Your task to perform on an android device: What's the weather? Image 0: 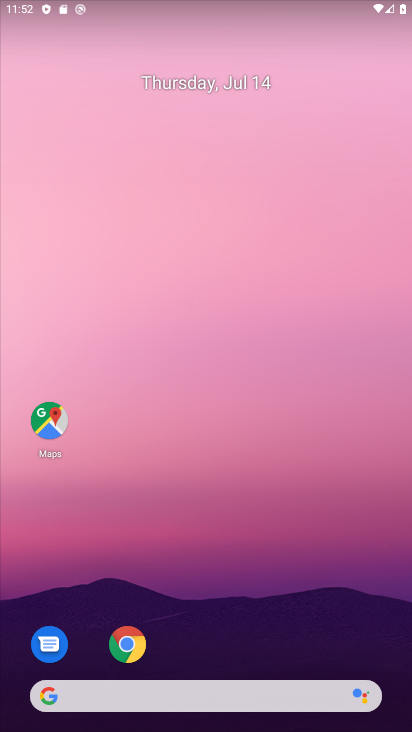
Step 0: drag from (363, 601) to (223, 79)
Your task to perform on an android device: What's the weather? Image 1: 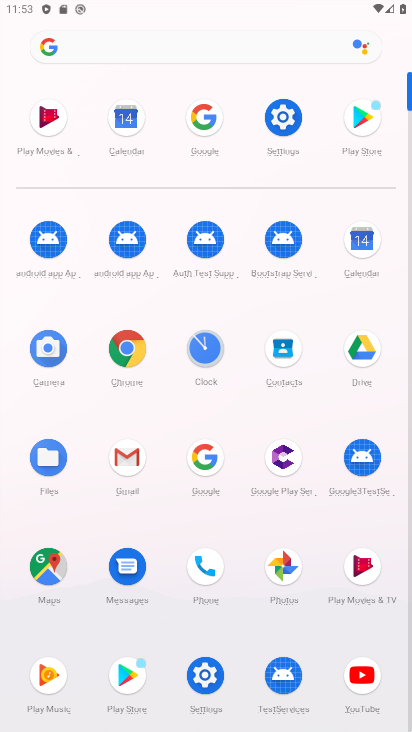
Step 1: click (222, 447)
Your task to perform on an android device: What's the weather? Image 2: 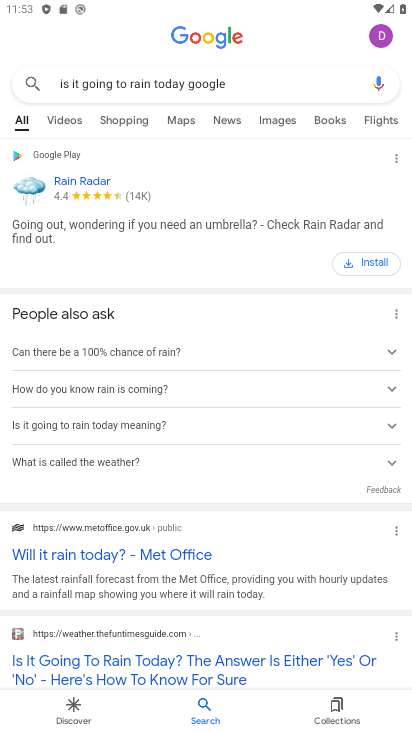
Step 2: press back button
Your task to perform on an android device: What's the weather? Image 3: 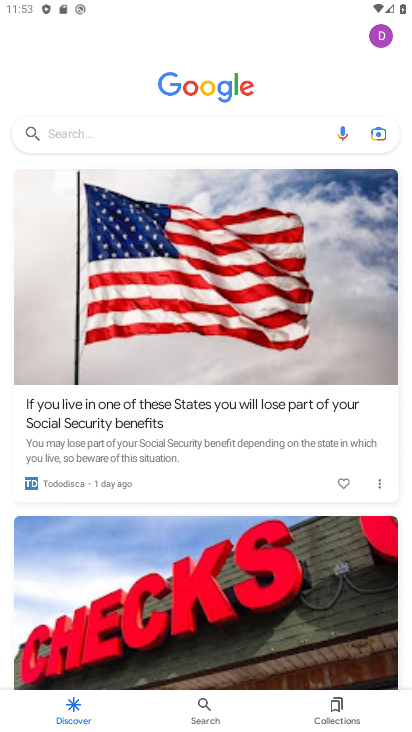
Step 3: click (83, 140)
Your task to perform on an android device: What's the weather? Image 4: 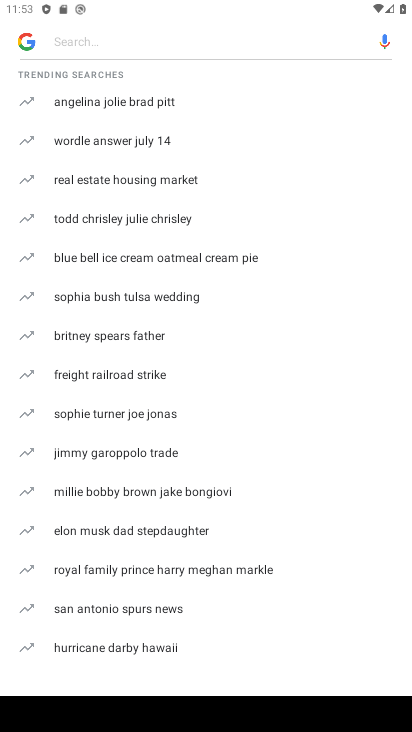
Step 4: type "What's the weather?"
Your task to perform on an android device: What's the weather? Image 5: 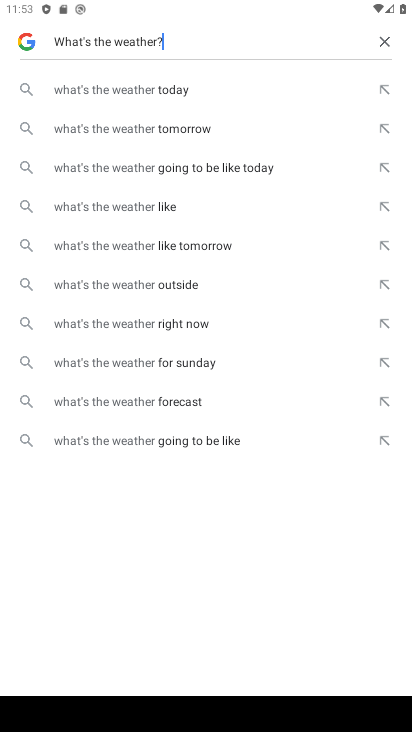
Step 5: click (134, 93)
Your task to perform on an android device: What's the weather? Image 6: 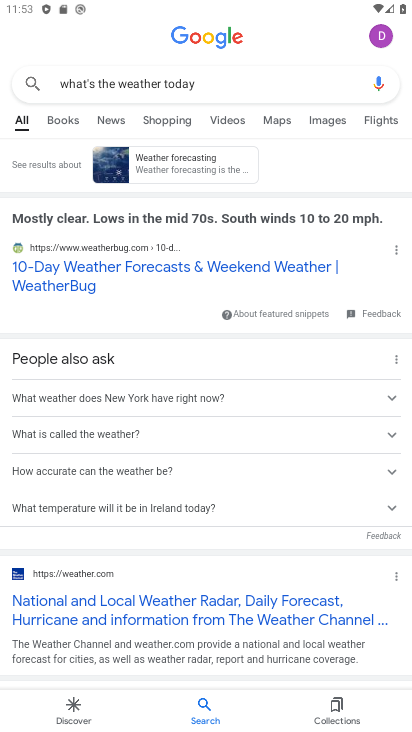
Step 6: task complete